Your task to perform on an android device: empty trash in the gmail app Image 0: 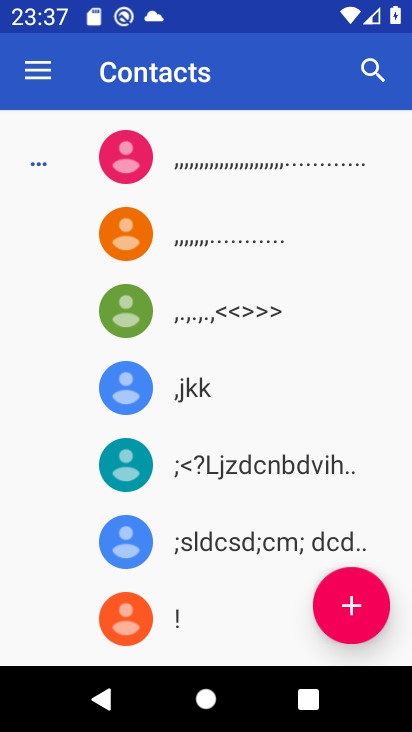
Step 0: press home button
Your task to perform on an android device: empty trash in the gmail app Image 1: 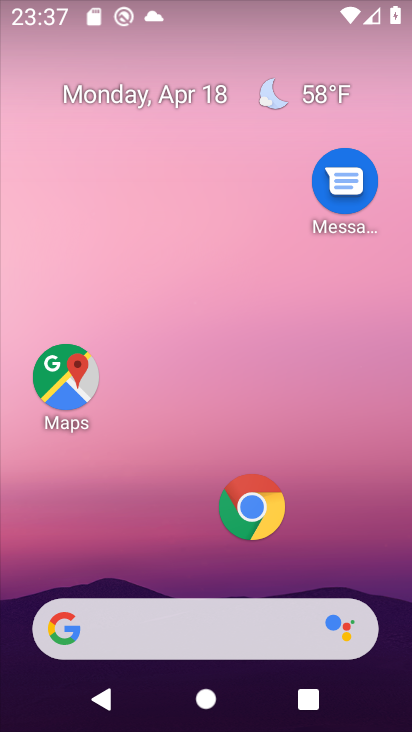
Step 1: drag from (178, 538) to (247, 27)
Your task to perform on an android device: empty trash in the gmail app Image 2: 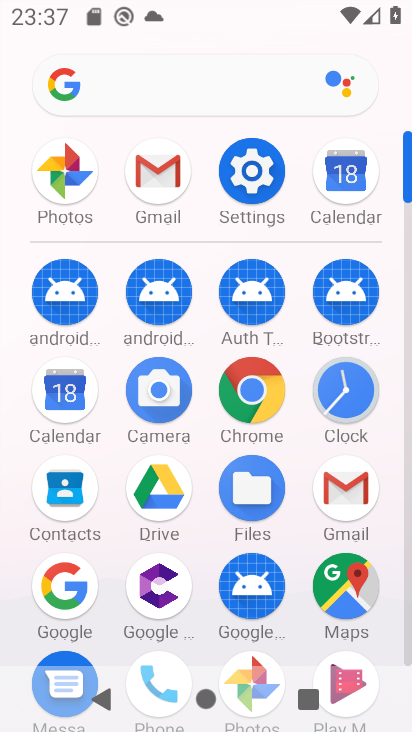
Step 2: click (345, 504)
Your task to perform on an android device: empty trash in the gmail app Image 3: 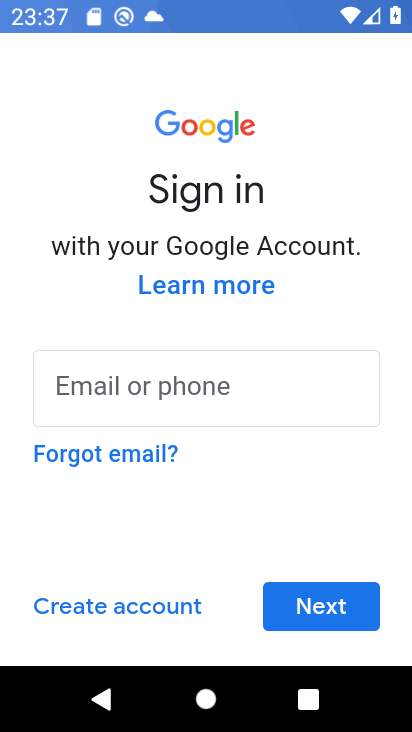
Step 3: click (116, 698)
Your task to perform on an android device: empty trash in the gmail app Image 4: 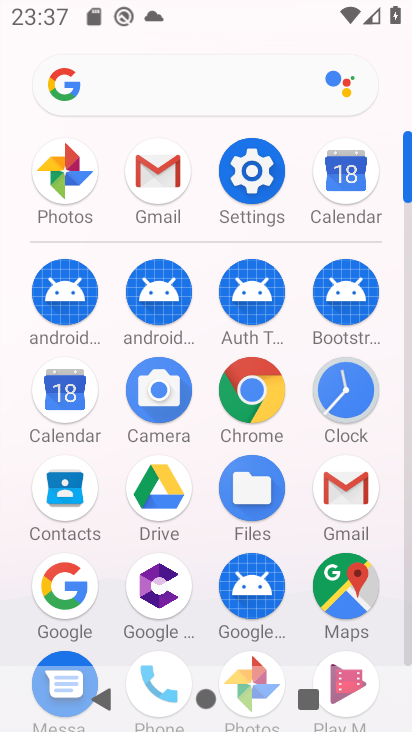
Step 4: click (169, 180)
Your task to perform on an android device: empty trash in the gmail app Image 5: 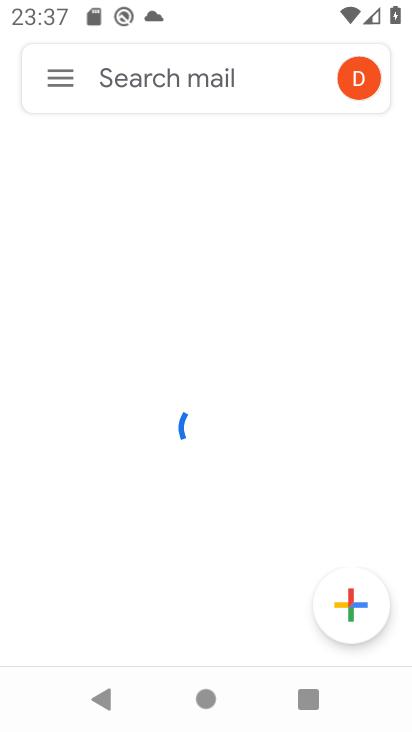
Step 5: click (50, 72)
Your task to perform on an android device: empty trash in the gmail app Image 6: 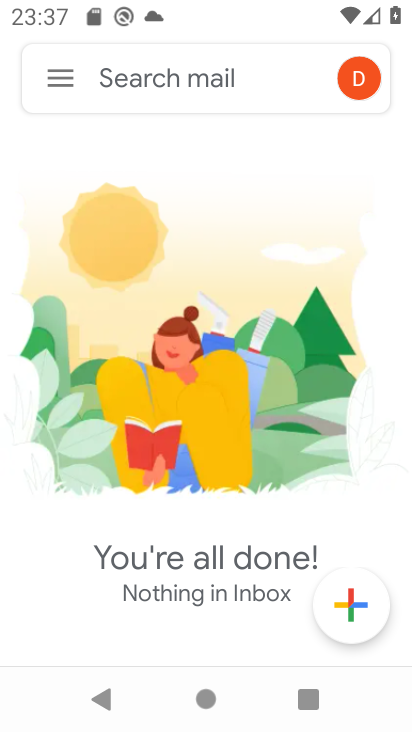
Step 6: click (65, 75)
Your task to perform on an android device: empty trash in the gmail app Image 7: 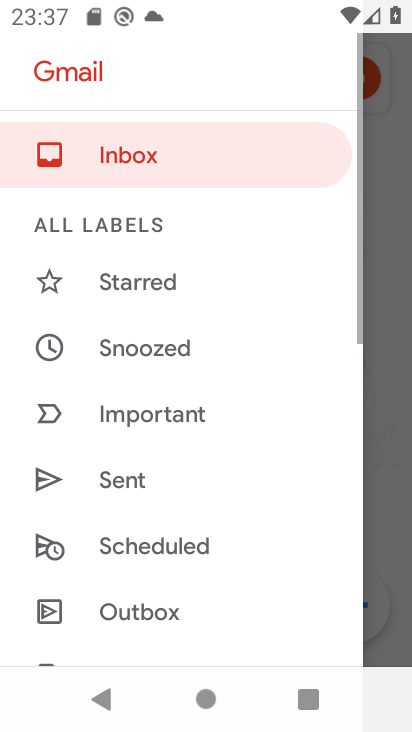
Step 7: drag from (155, 513) to (226, 97)
Your task to perform on an android device: empty trash in the gmail app Image 8: 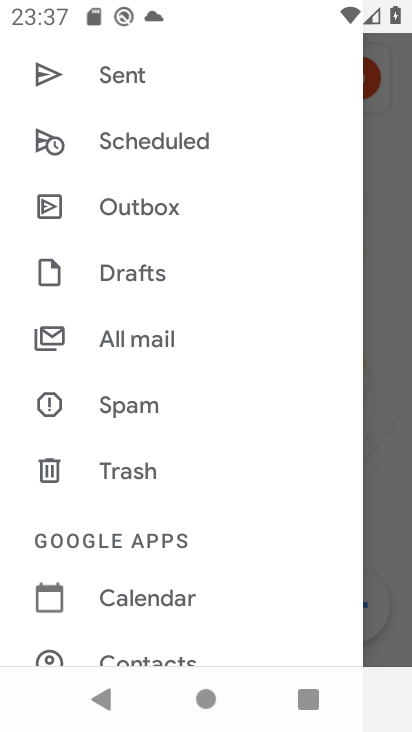
Step 8: drag from (157, 480) to (132, 5)
Your task to perform on an android device: empty trash in the gmail app Image 9: 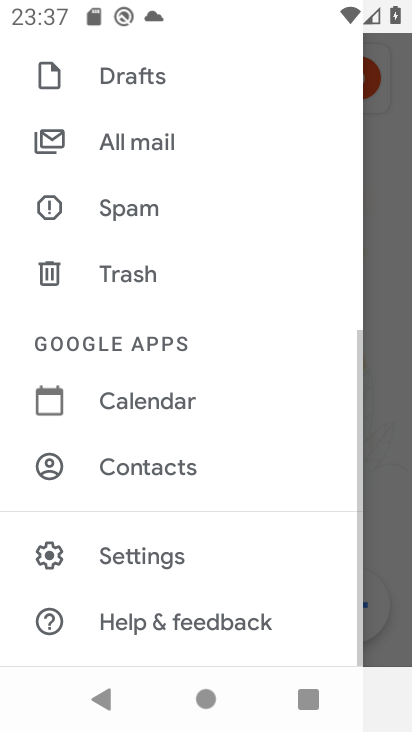
Step 9: click (145, 560)
Your task to perform on an android device: empty trash in the gmail app Image 10: 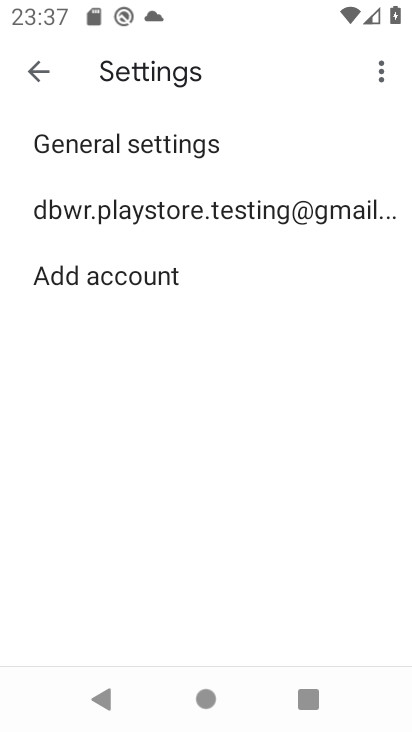
Step 10: click (24, 59)
Your task to perform on an android device: empty trash in the gmail app Image 11: 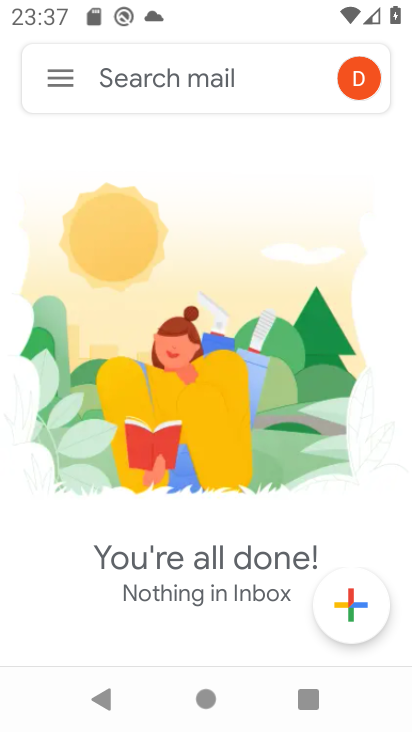
Step 11: click (61, 71)
Your task to perform on an android device: empty trash in the gmail app Image 12: 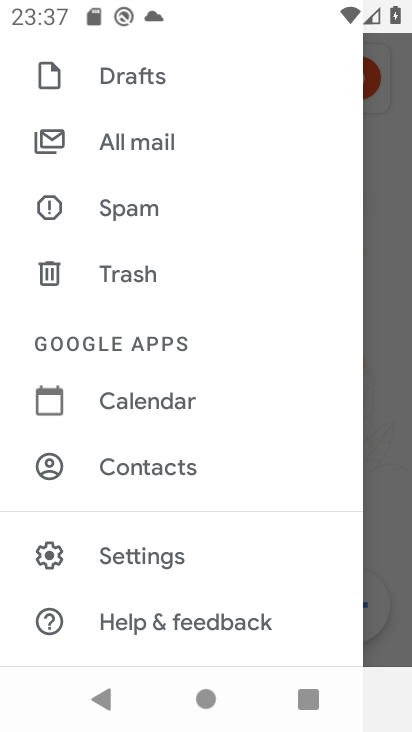
Step 12: click (134, 284)
Your task to perform on an android device: empty trash in the gmail app Image 13: 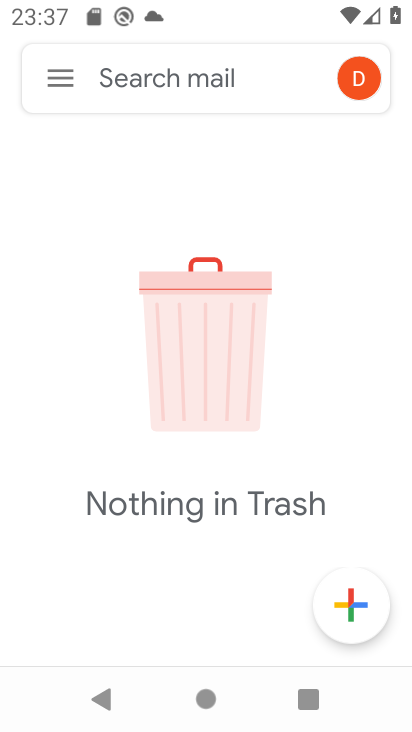
Step 13: task complete